Your task to perform on an android device: Search for sushi restaurants on Maps Image 0: 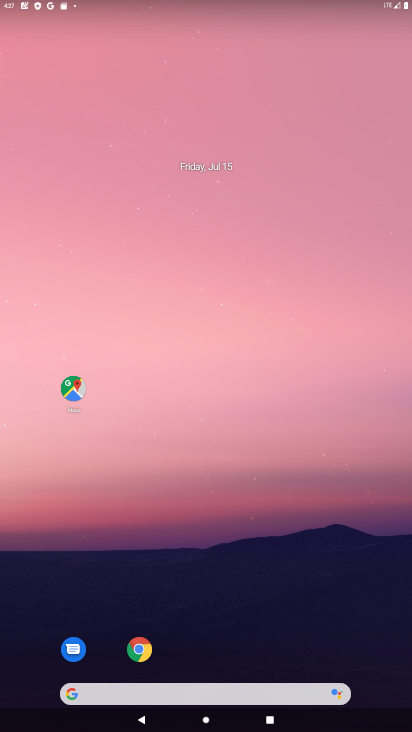
Step 0: drag from (210, 646) to (203, 74)
Your task to perform on an android device: Search for sushi restaurants on Maps Image 1: 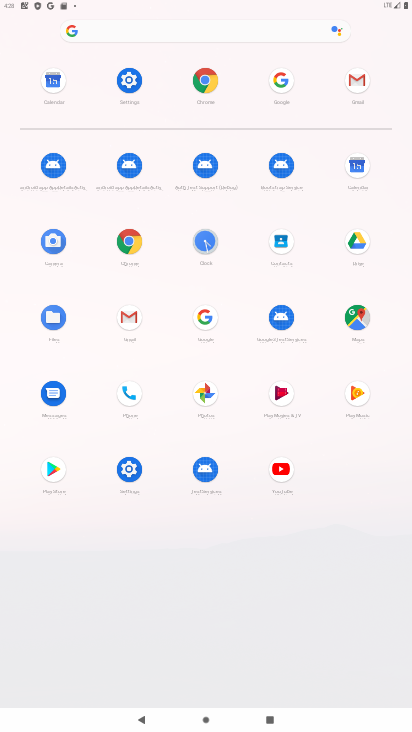
Step 1: click (354, 320)
Your task to perform on an android device: Search for sushi restaurants on Maps Image 2: 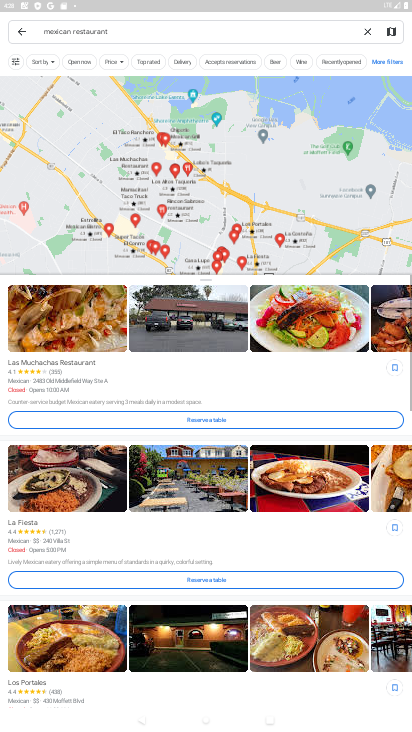
Step 2: click (133, 28)
Your task to perform on an android device: Search for sushi restaurants on Maps Image 3: 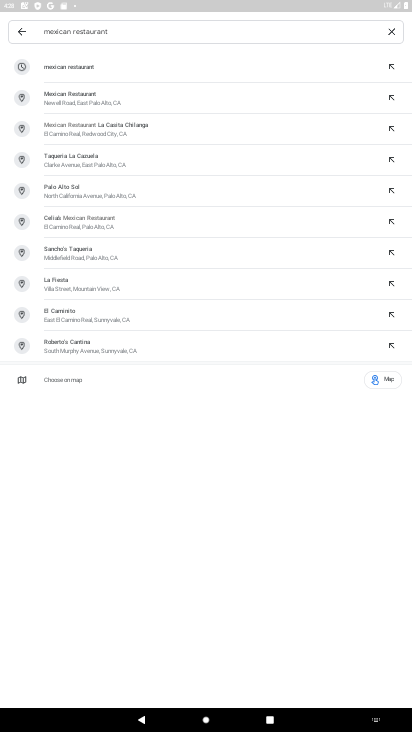
Step 3: click (385, 33)
Your task to perform on an android device: Search for sushi restaurants on Maps Image 4: 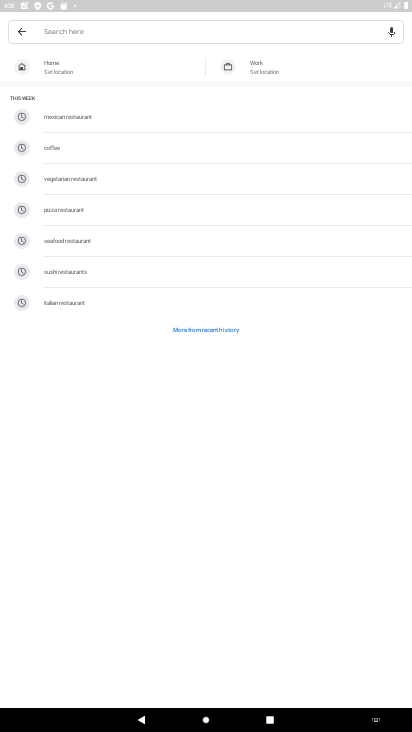
Step 4: type "sushi restaurants"
Your task to perform on an android device: Search for sushi restaurants on Maps Image 5: 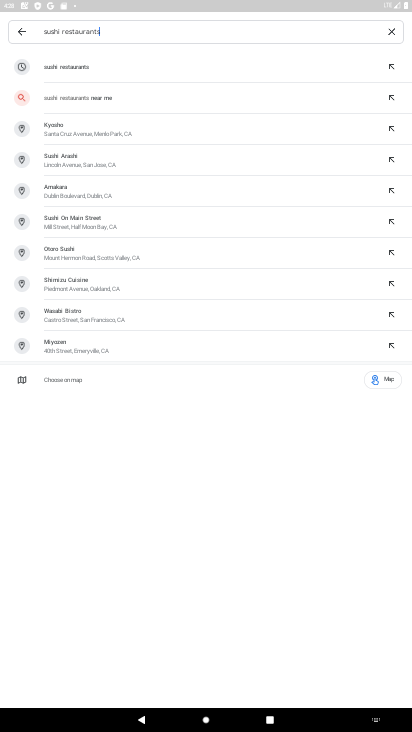
Step 5: click (81, 71)
Your task to perform on an android device: Search for sushi restaurants on Maps Image 6: 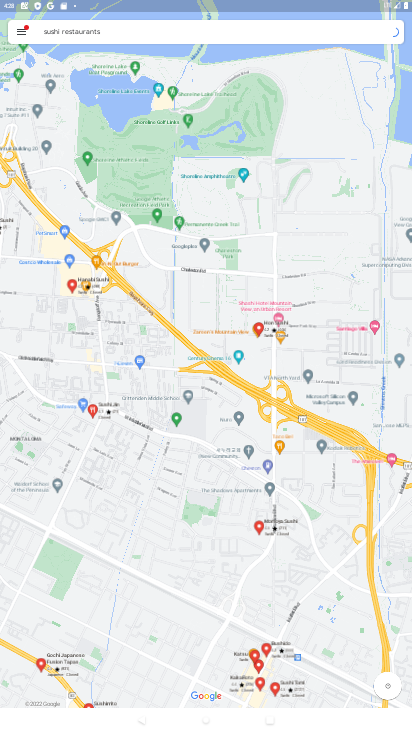
Step 6: task complete